Your task to perform on an android device: Open battery settings Image 0: 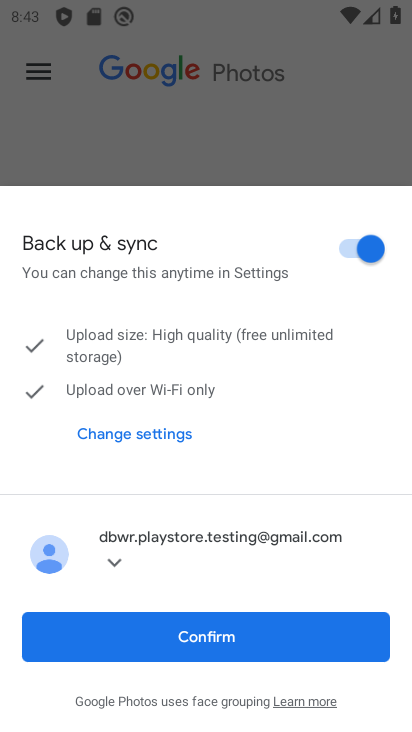
Step 0: press home button
Your task to perform on an android device: Open battery settings Image 1: 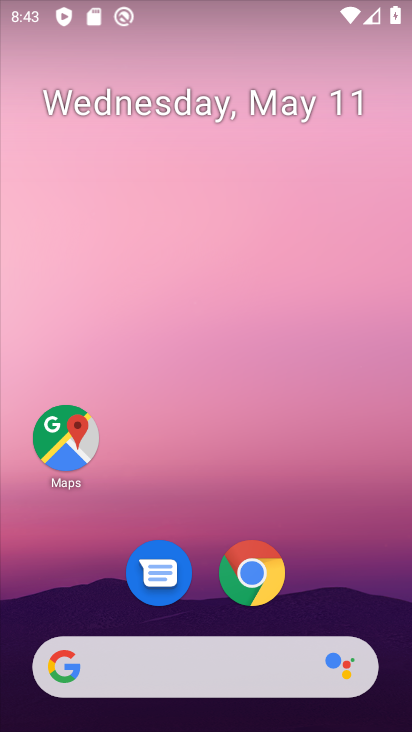
Step 1: drag from (324, 501) to (338, 87)
Your task to perform on an android device: Open battery settings Image 2: 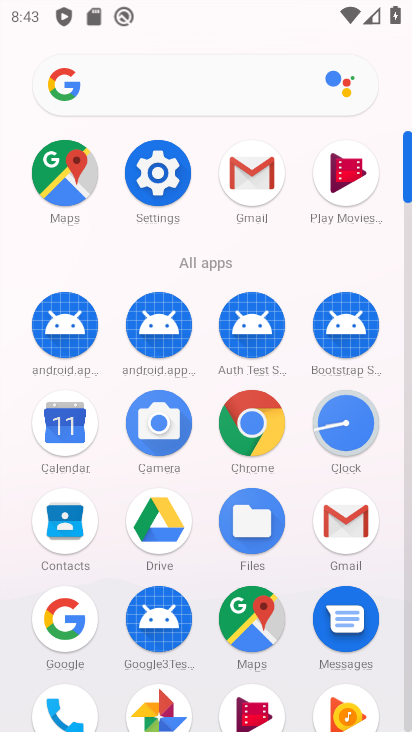
Step 2: click (164, 201)
Your task to perform on an android device: Open battery settings Image 3: 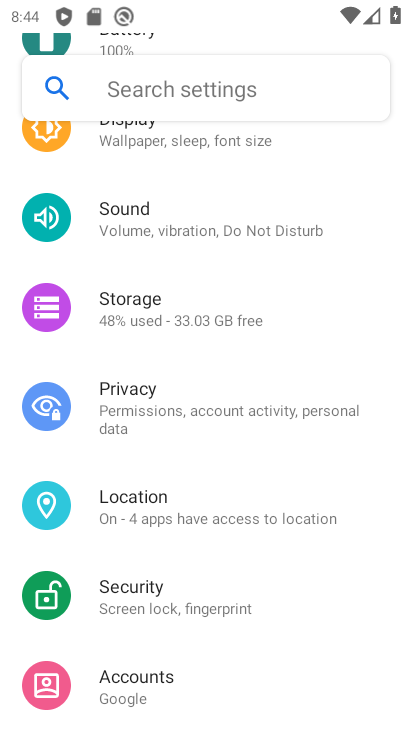
Step 3: drag from (164, 201) to (151, 613)
Your task to perform on an android device: Open battery settings Image 4: 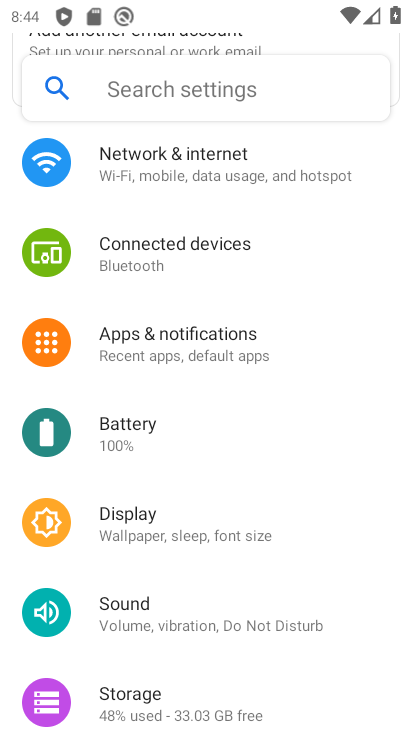
Step 4: click (194, 426)
Your task to perform on an android device: Open battery settings Image 5: 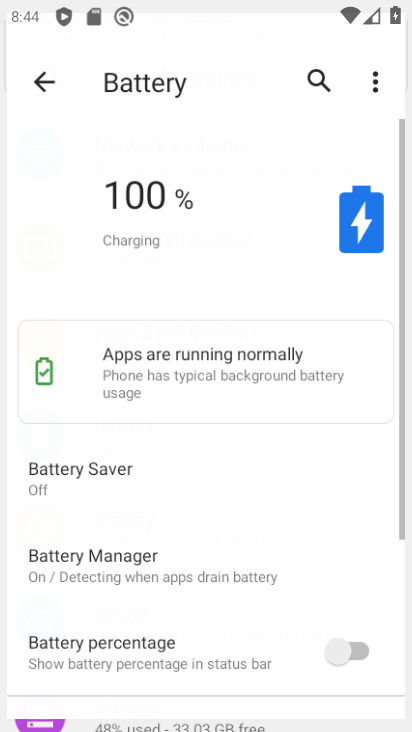
Step 5: task complete